Your task to perform on an android device: toggle data saver in the chrome app Image 0: 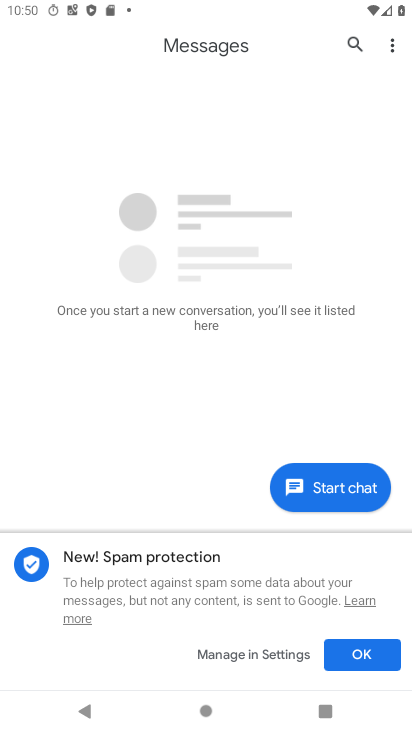
Step 0: press home button
Your task to perform on an android device: toggle data saver in the chrome app Image 1: 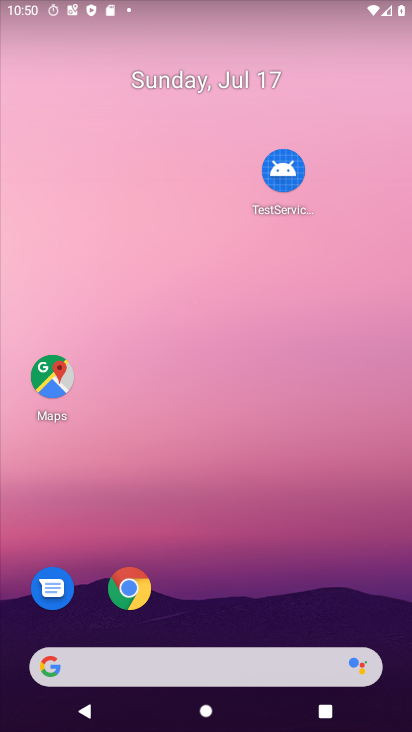
Step 1: drag from (269, 606) to (290, 59)
Your task to perform on an android device: toggle data saver in the chrome app Image 2: 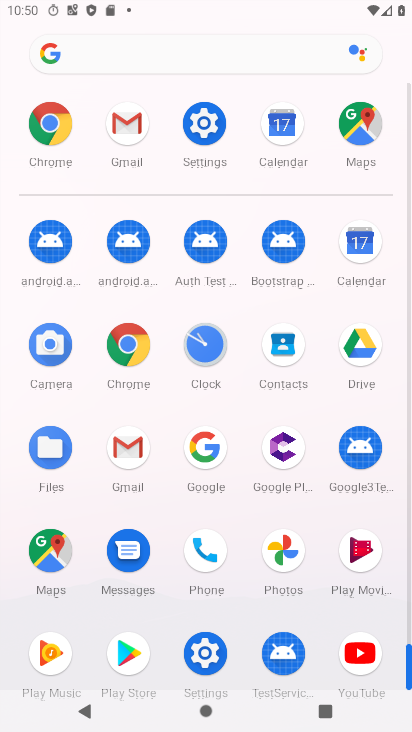
Step 2: click (133, 365)
Your task to perform on an android device: toggle data saver in the chrome app Image 3: 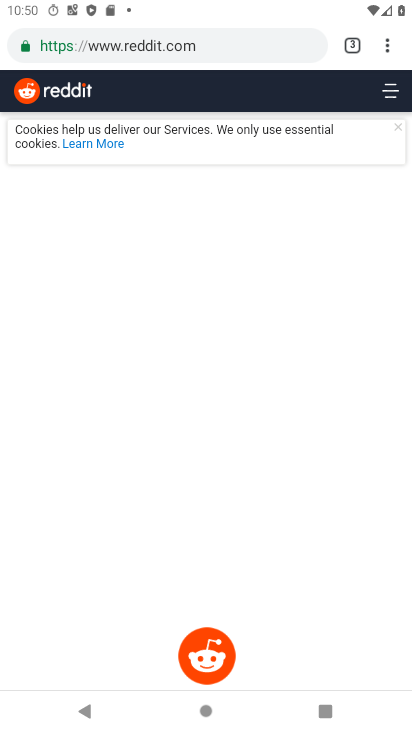
Step 3: click (383, 51)
Your task to perform on an android device: toggle data saver in the chrome app Image 4: 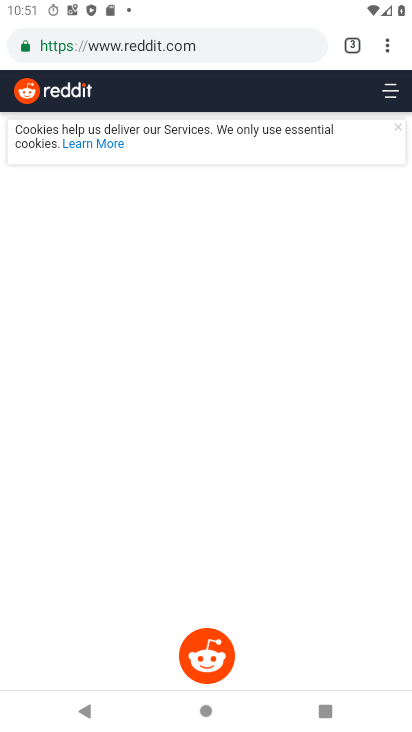
Step 4: click (384, 51)
Your task to perform on an android device: toggle data saver in the chrome app Image 5: 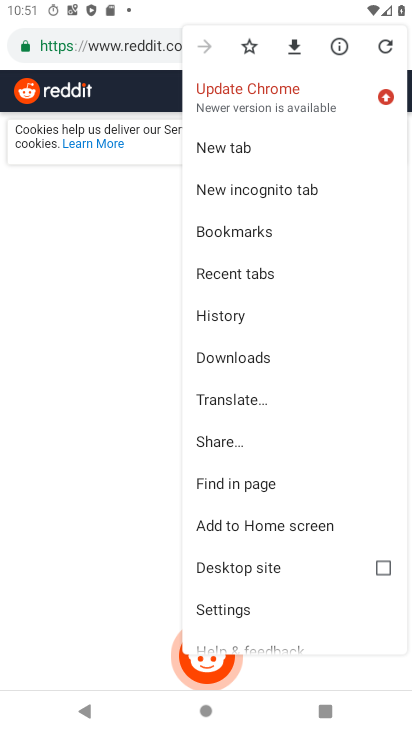
Step 5: click (232, 610)
Your task to perform on an android device: toggle data saver in the chrome app Image 6: 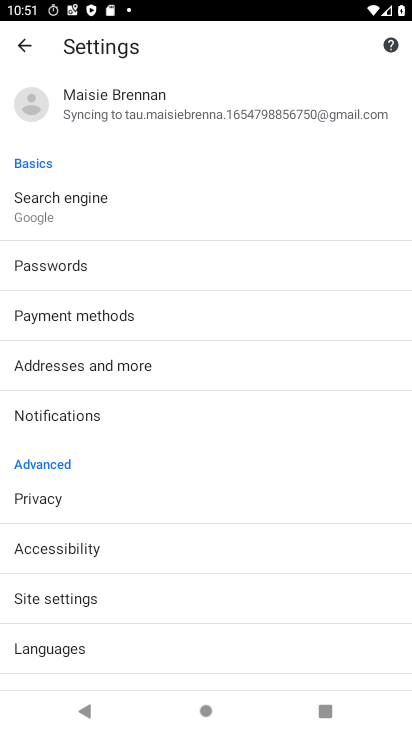
Step 6: drag from (190, 607) to (200, 459)
Your task to perform on an android device: toggle data saver in the chrome app Image 7: 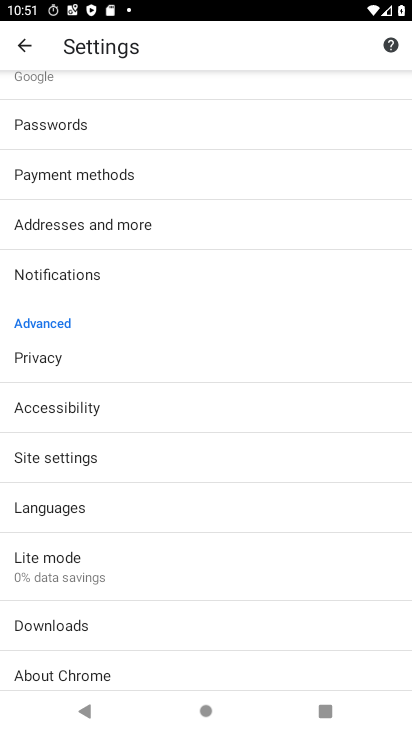
Step 7: click (66, 577)
Your task to perform on an android device: toggle data saver in the chrome app Image 8: 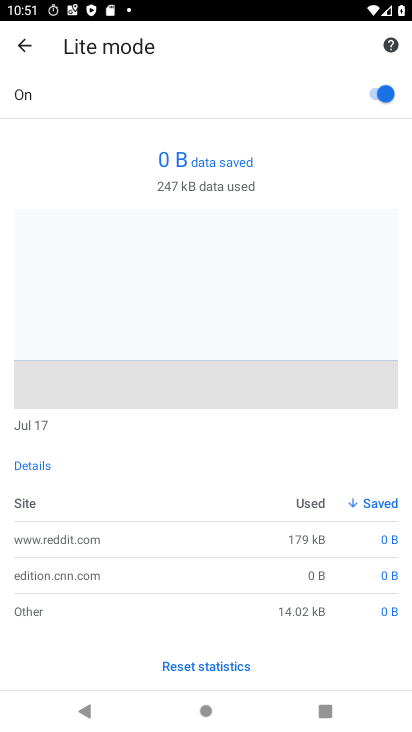
Step 8: task complete